Your task to perform on an android device: Open sound settings Image 0: 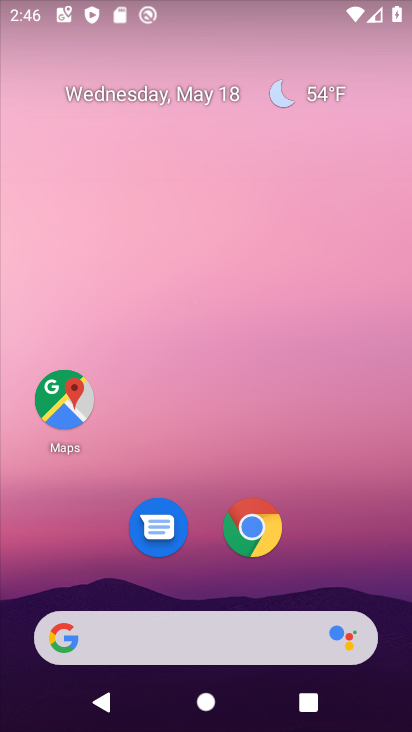
Step 0: drag from (202, 608) to (159, 73)
Your task to perform on an android device: Open sound settings Image 1: 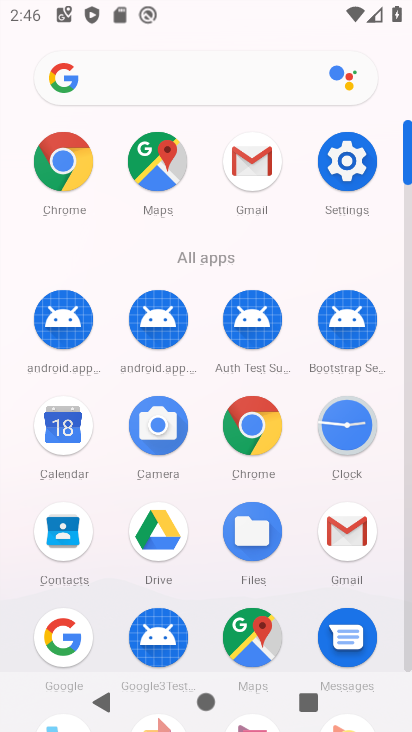
Step 1: click (349, 153)
Your task to perform on an android device: Open sound settings Image 2: 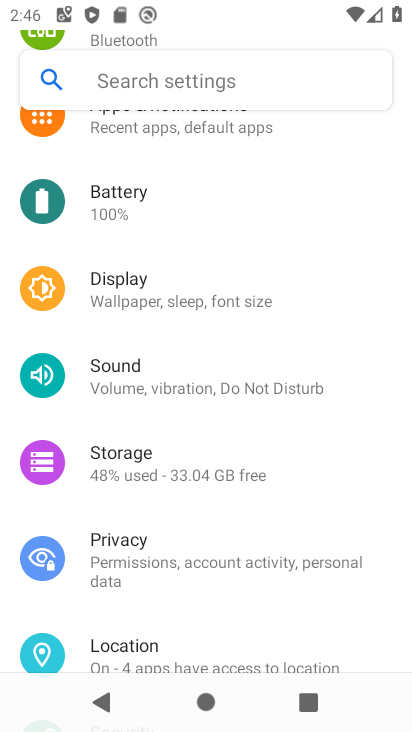
Step 2: click (120, 369)
Your task to perform on an android device: Open sound settings Image 3: 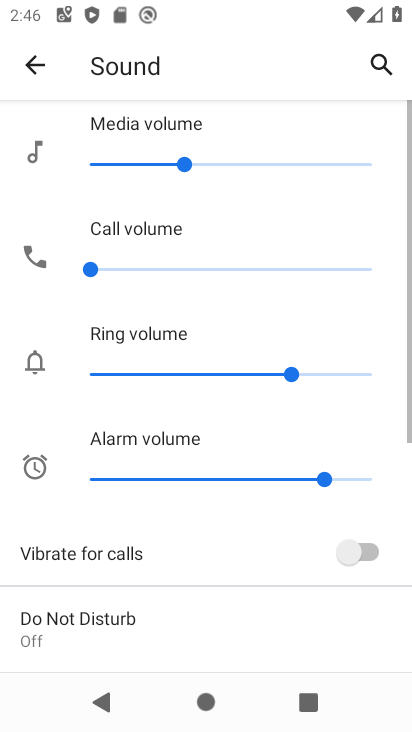
Step 3: task complete